Your task to perform on an android device: Go to sound settings Image 0: 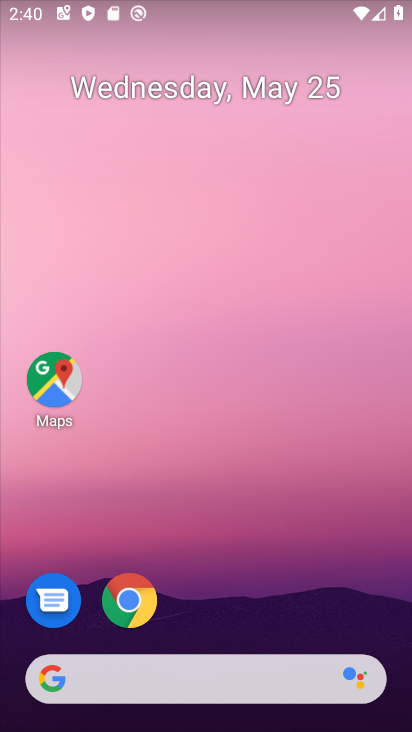
Step 0: drag from (31, 622) to (299, 63)
Your task to perform on an android device: Go to sound settings Image 1: 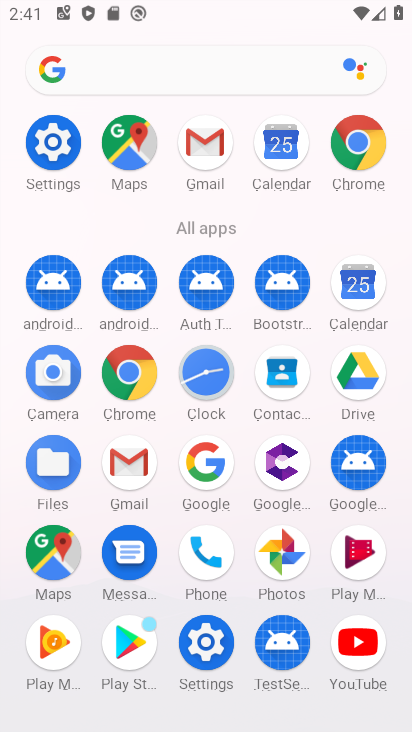
Step 1: click (62, 140)
Your task to perform on an android device: Go to sound settings Image 2: 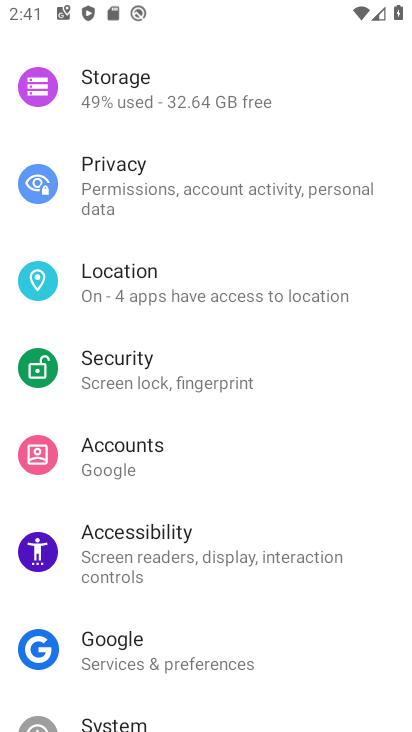
Step 2: drag from (173, 103) to (152, 600)
Your task to perform on an android device: Go to sound settings Image 3: 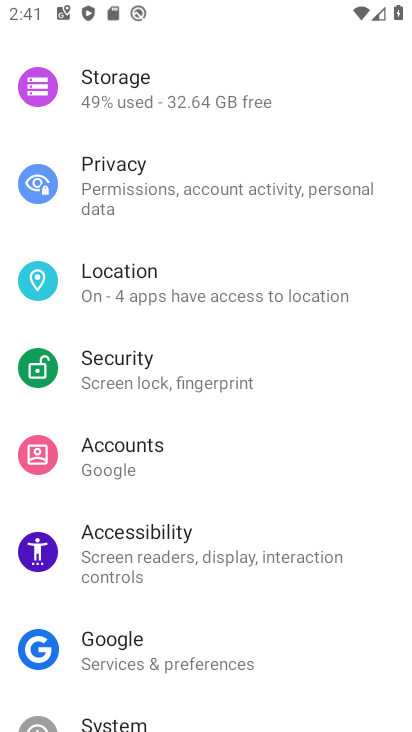
Step 3: drag from (190, 78) to (182, 474)
Your task to perform on an android device: Go to sound settings Image 4: 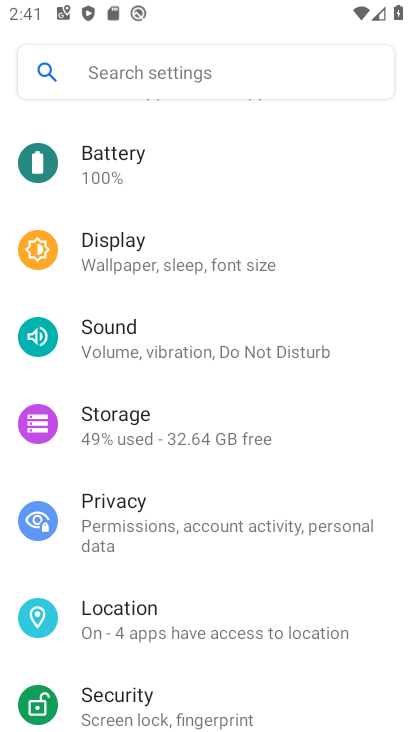
Step 4: drag from (194, 157) to (193, 578)
Your task to perform on an android device: Go to sound settings Image 5: 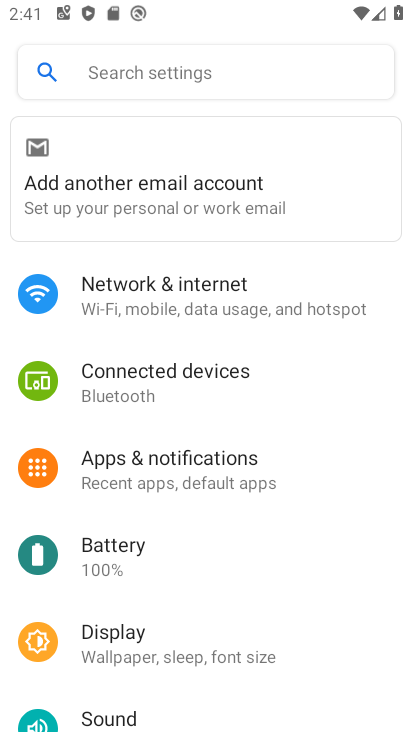
Step 5: drag from (33, 522) to (213, 180)
Your task to perform on an android device: Go to sound settings Image 6: 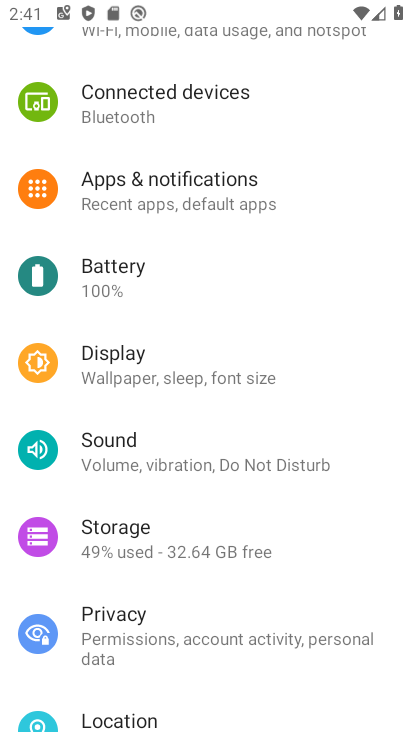
Step 6: click (111, 453)
Your task to perform on an android device: Go to sound settings Image 7: 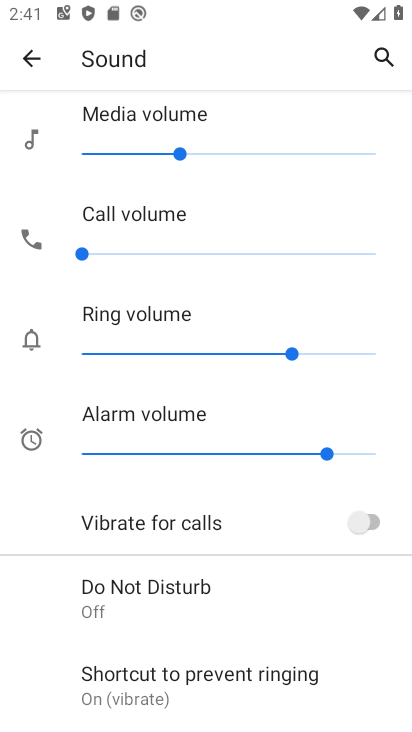
Step 7: task complete